Your task to perform on an android device: star an email in the gmail app Image 0: 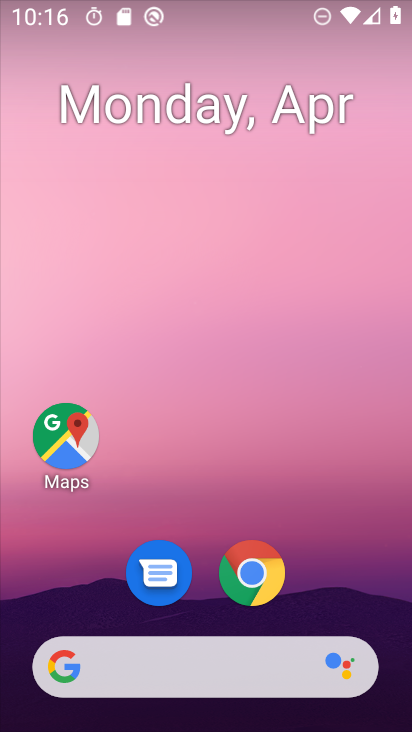
Step 0: drag from (367, 528) to (324, 51)
Your task to perform on an android device: star an email in the gmail app Image 1: 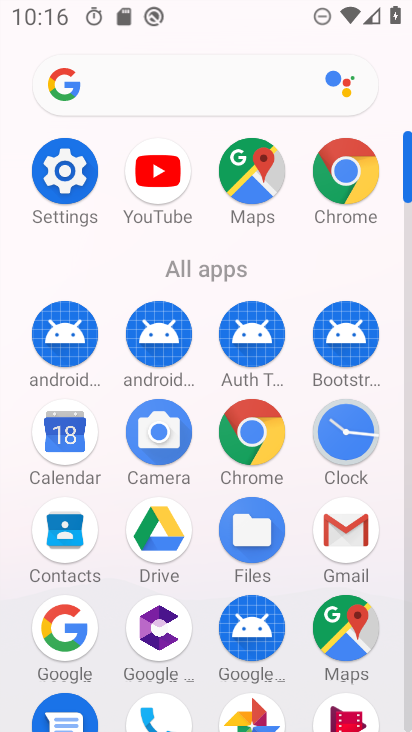
Step 1: click (354, 514)
Your task to perform on an android device: star an email in the gmail app Image 2: 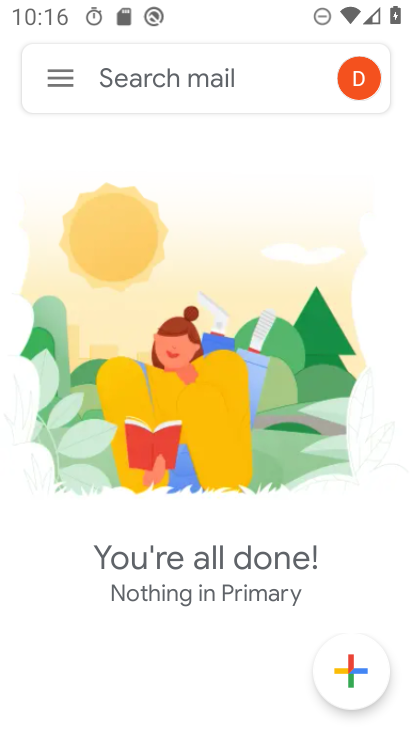
Step 2: click (75, 99)
Your task to perform on an android device: star an email in the gmail app Image 3: 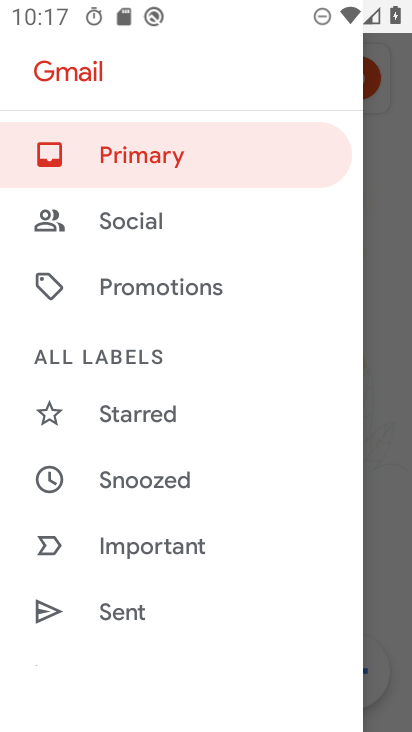
Step 3: drag from (208, 407) to (149, 212)
Your task to perform on an android device: star an email in the gmail app Image 4: 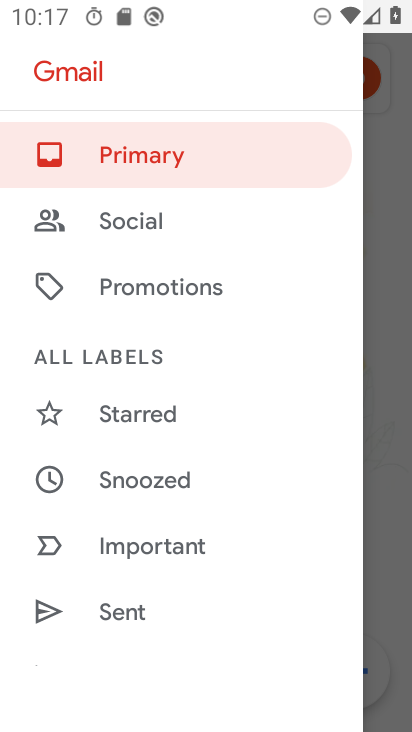
Step 4: drag from (136, 499) to (173, 128)
Your task to perform on an android device: star an email in the gmail app Image 5: 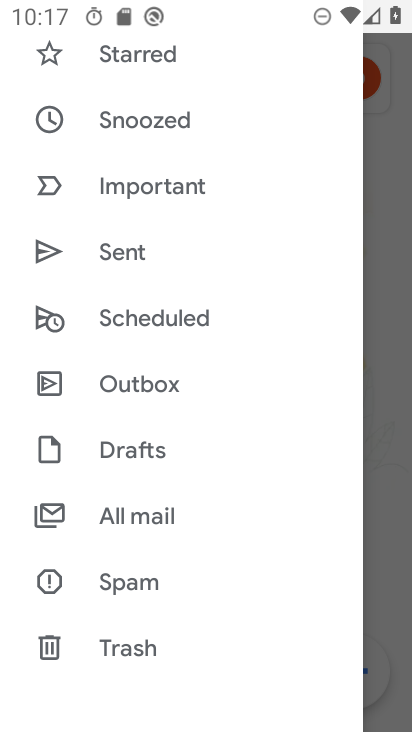
Step 5: drag from (169, 581) to (273, 212)
Your task to perform on an android device: star an email in the gmail app Image 6: 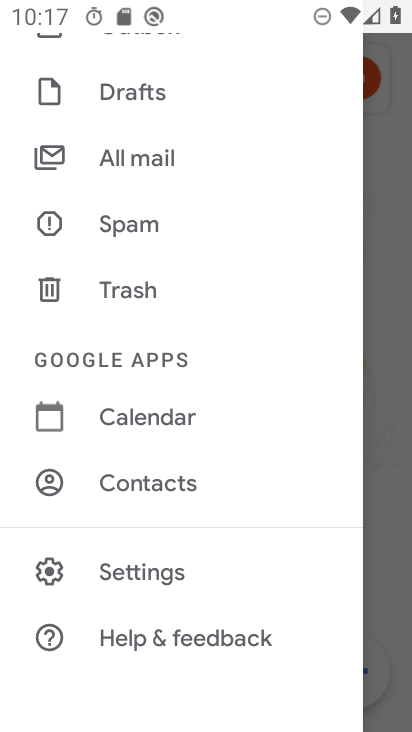
Step 6: click (104, 155)
Your task to perform on an android device: star an email in the gmail app Image 7: 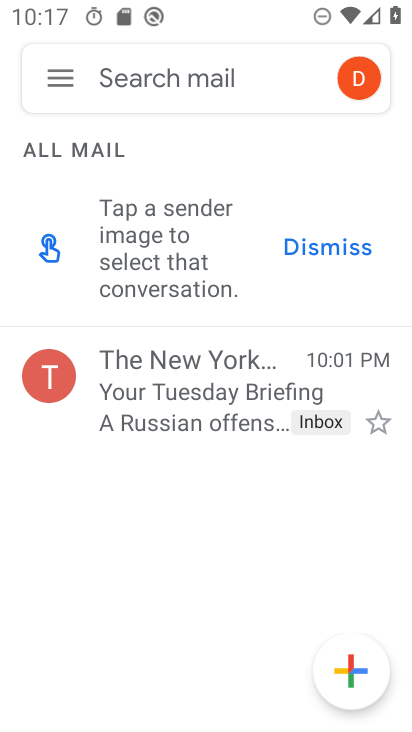
Step 7: click (183, 381)
Your task to perform on an android device: star an email in the gmail app Image 8: 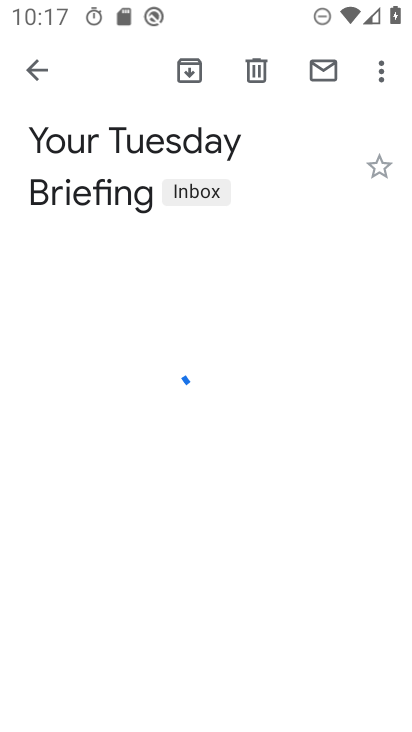
Step 8: click (375, 178)
Your task to perform on an android device: star an email in the gmail app Image 9: 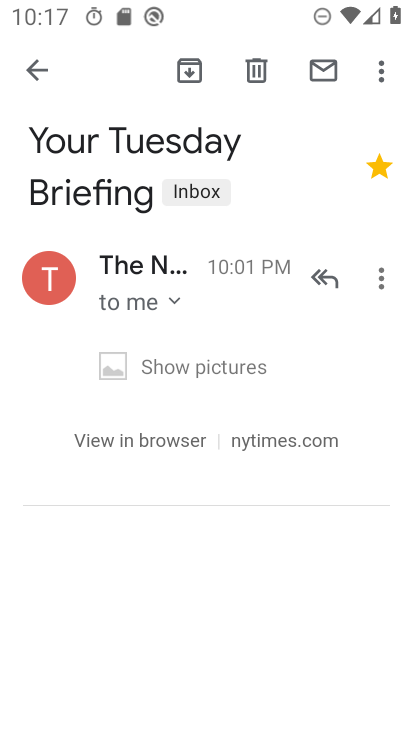
Step 9: task complete